Your task to perform on an android device: View the shopping cart on ebay.com. Add macbook to the cart on ebay.com Image 0: 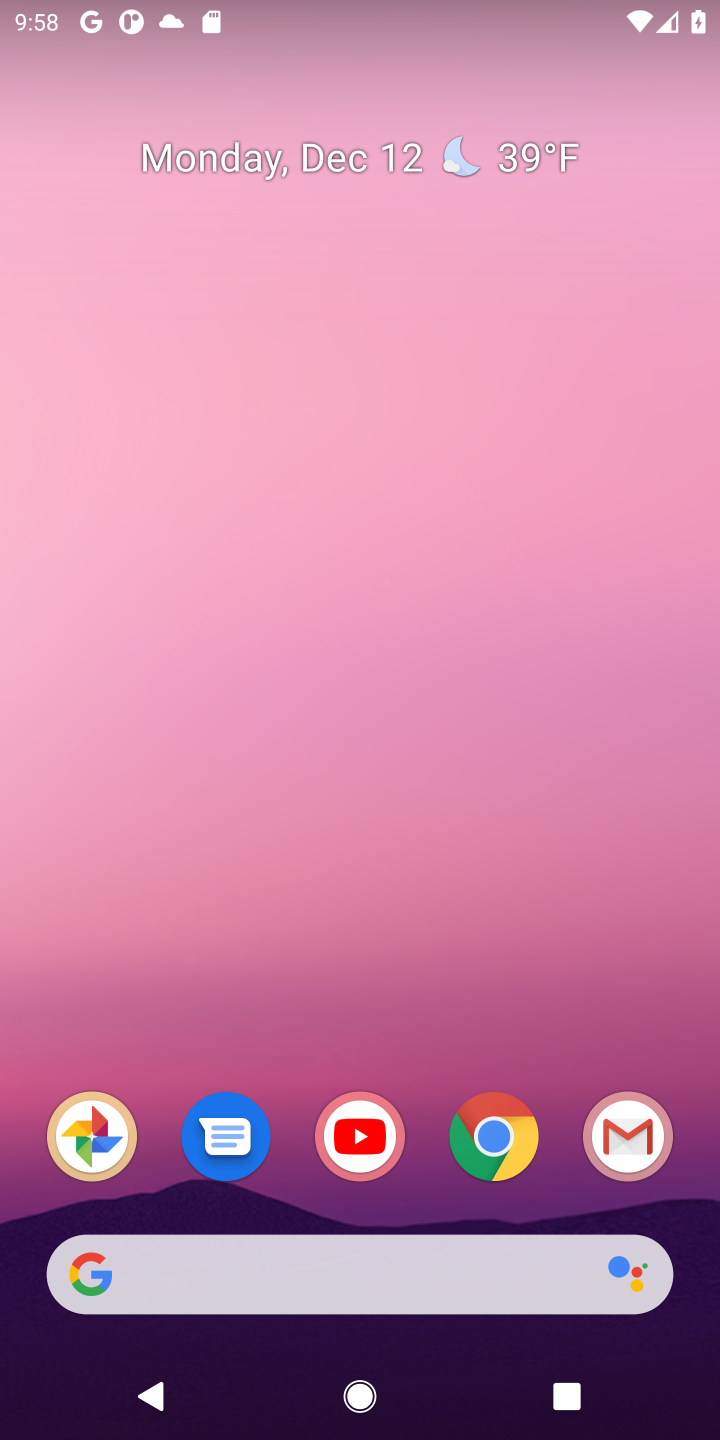
Step 0: click (493, 1147)
Your task to perform on an android device: View the shopping cart on ebay.com. Add macbook to the cart on ebay.com Image 1: 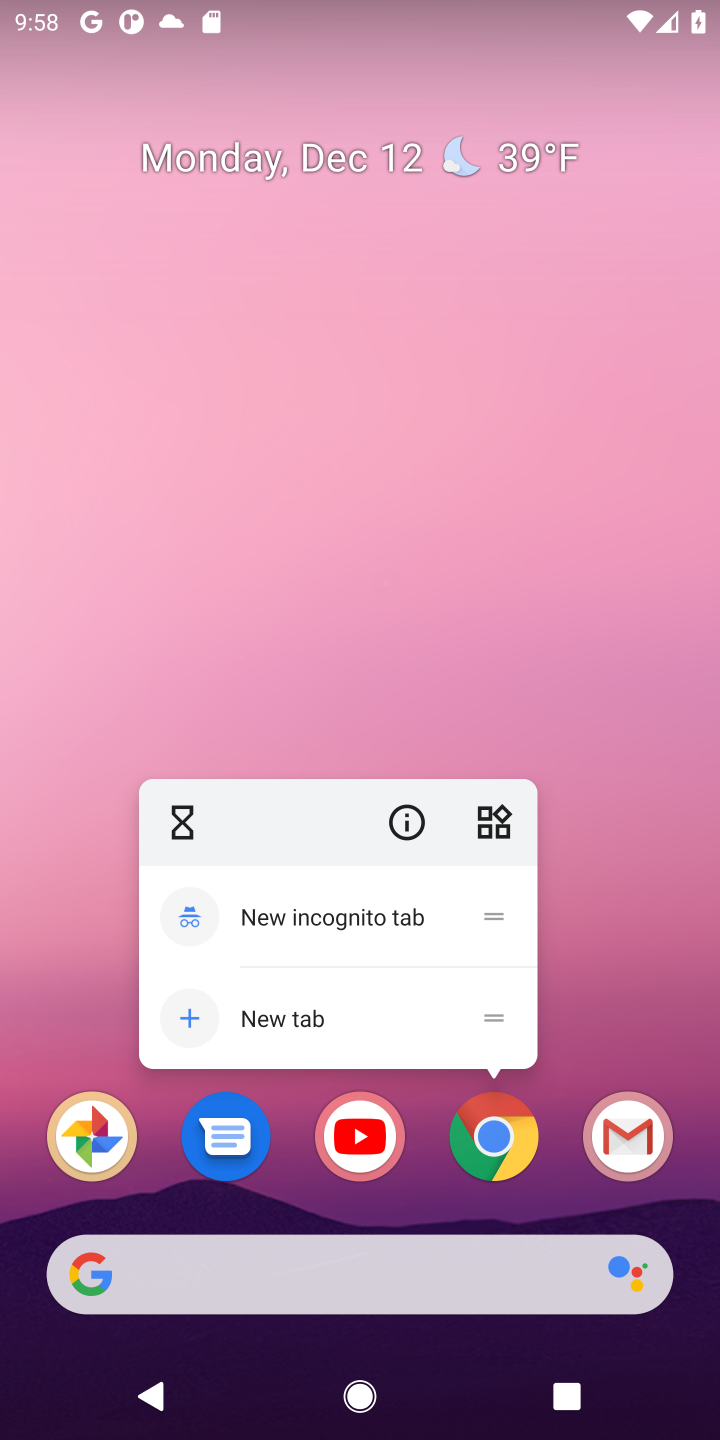
Step 1: click (493, 1147)
Your task to perform on an android device: View the shopping cart on ebay.com. Add macbook to the cart on ebay.com Image 2: 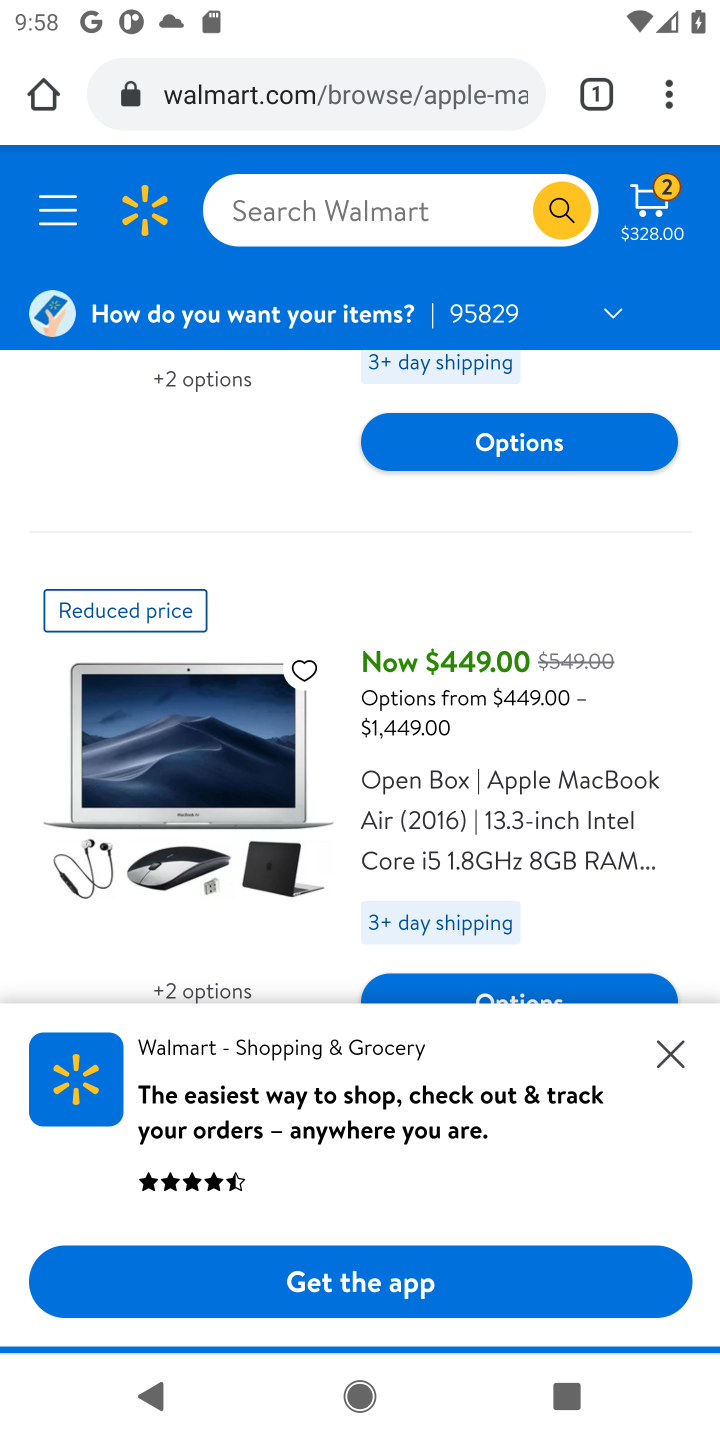
Step 2: click (263, 97)
Your task to perform on an android device: View the shopping cart on ebay.com. Add macbook to the cart on ebay.com Image 3: 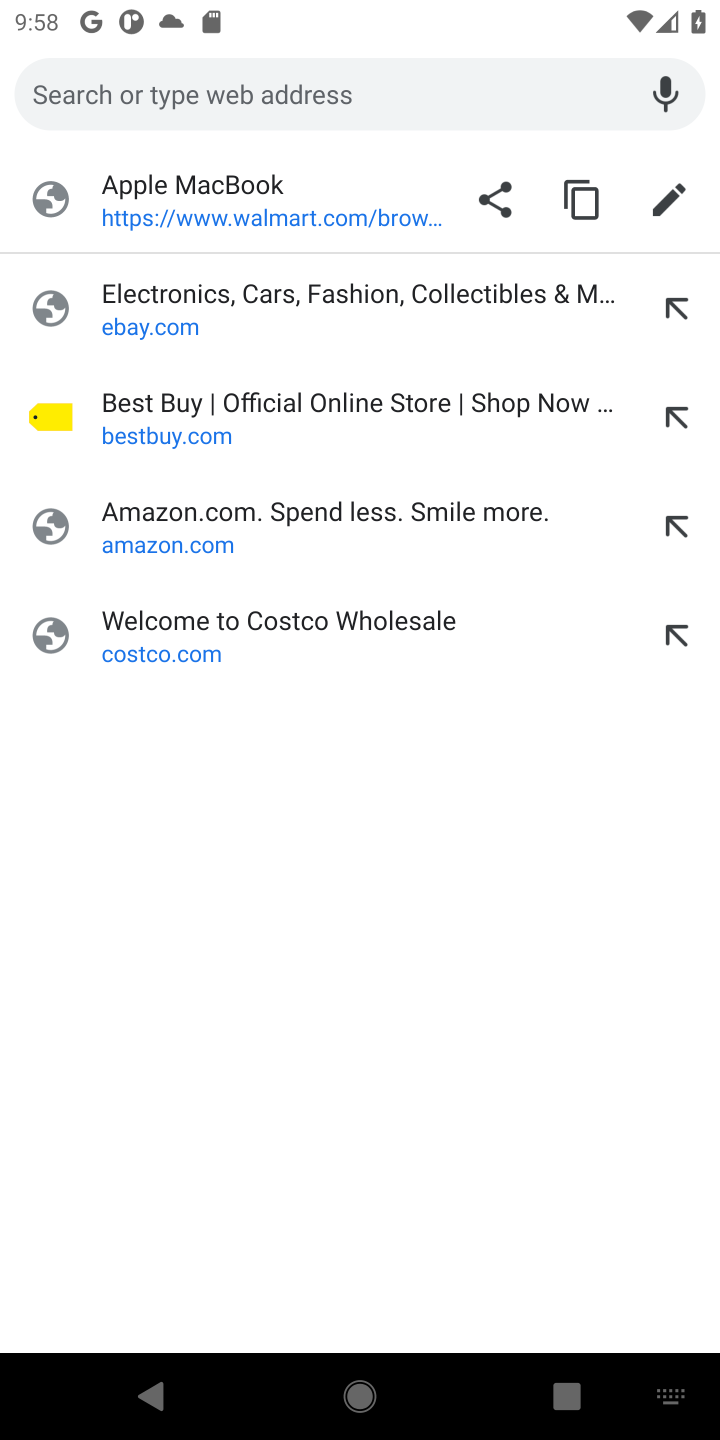
Step 3: click (170, 314)
Your task to perform on an android device: View the shopping cart on ebay.com. Add macbook to the cart on ebay.com Image 4: 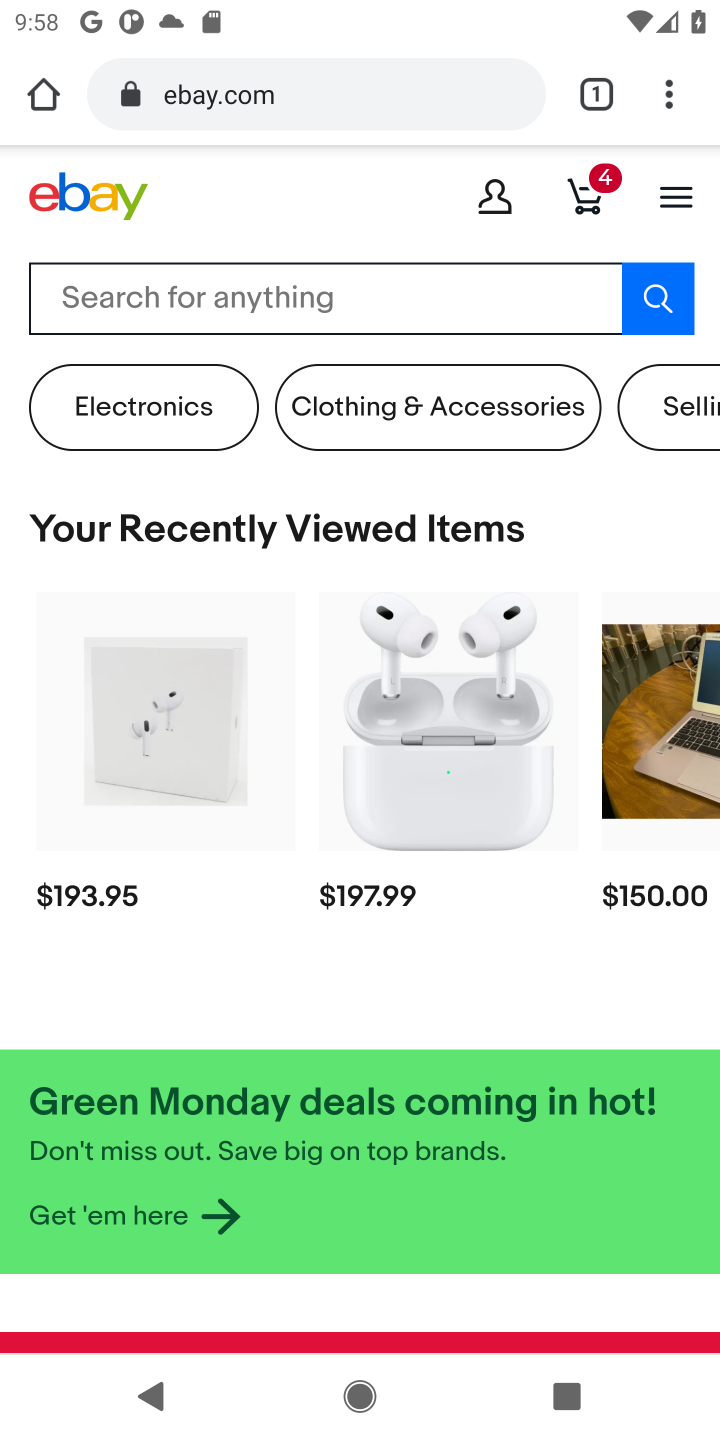
Step 4: click (590, 199)
Your task to perform on an android device: View the shopping cart on ebay.com. Add macbook to the cart on ebay.com Image 5: 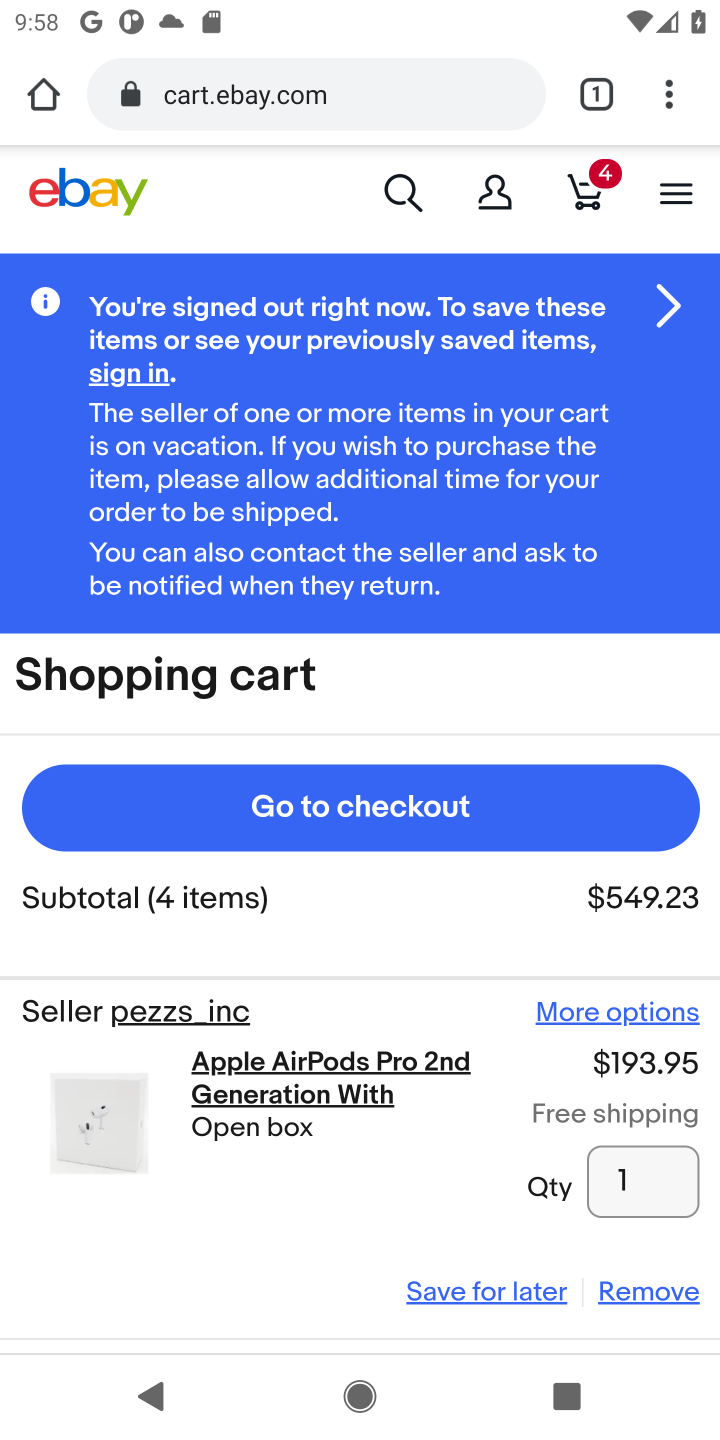
Step 5: drag from (349, 906) to (372, 569)
Your task to perform on an android device: View the shopping cart on ebay.com. Add macbook to the cart on ebay.com Image 6: 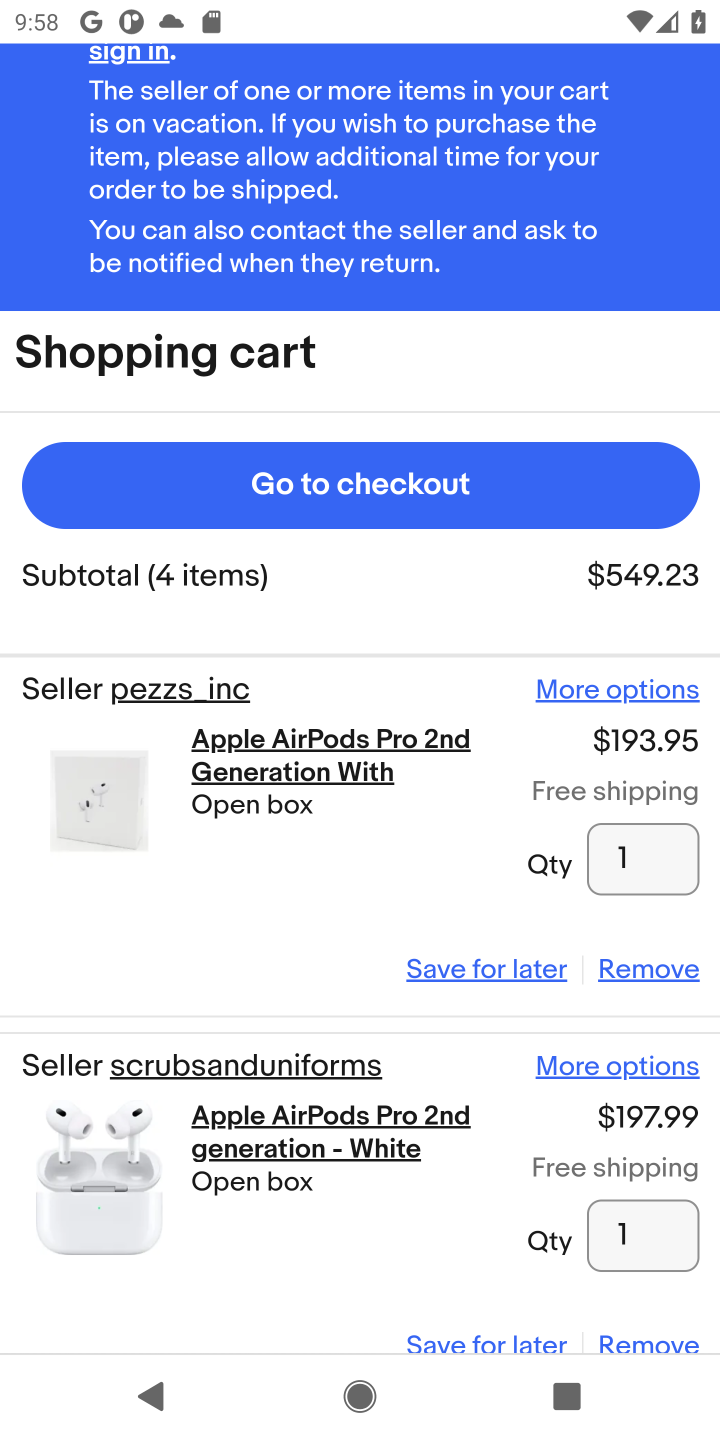
Step 6: drag from (405, 424) to (388, 1043)
Your task to perform on an android device: View the shopping cart on ebay.com. Add macbook to the cart on ebay.com Image 7: 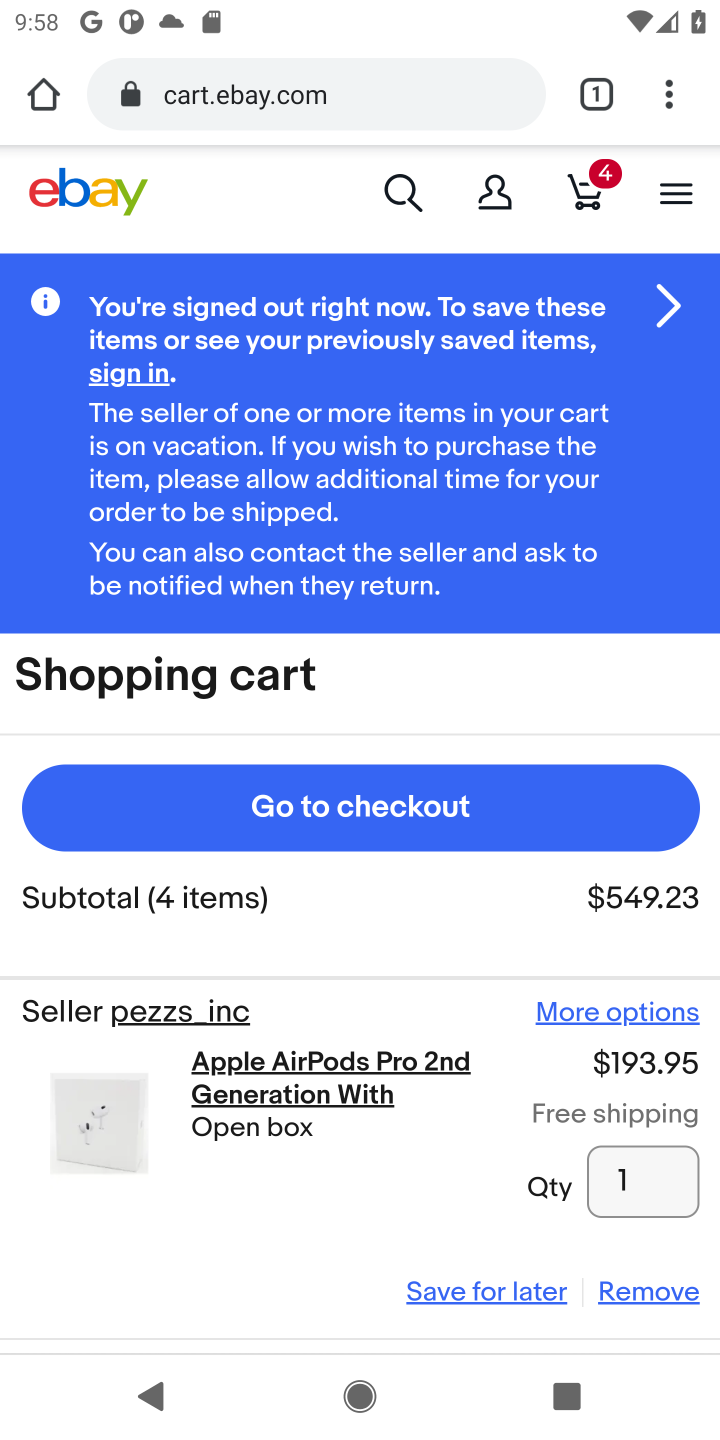
Step 7: click (400, 201)
Your task to perform on an android device: View the shopping cart on ebay.com. Add macbook to the cart on ebay.com Image 8: 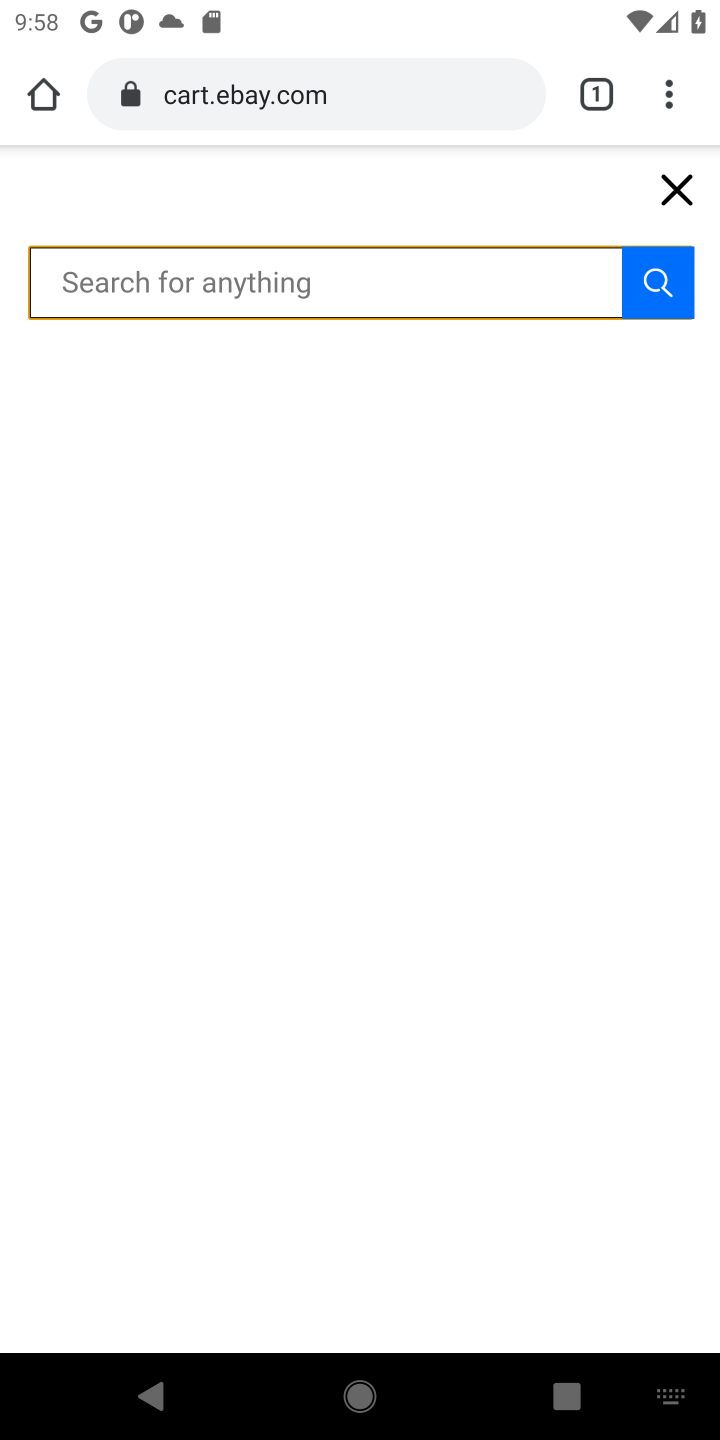
Step 8: type "macbook"
Your task to perform on an android device: View the shopping cart on ebay.com. Add macbook to the cart on ebay.com Image 9: 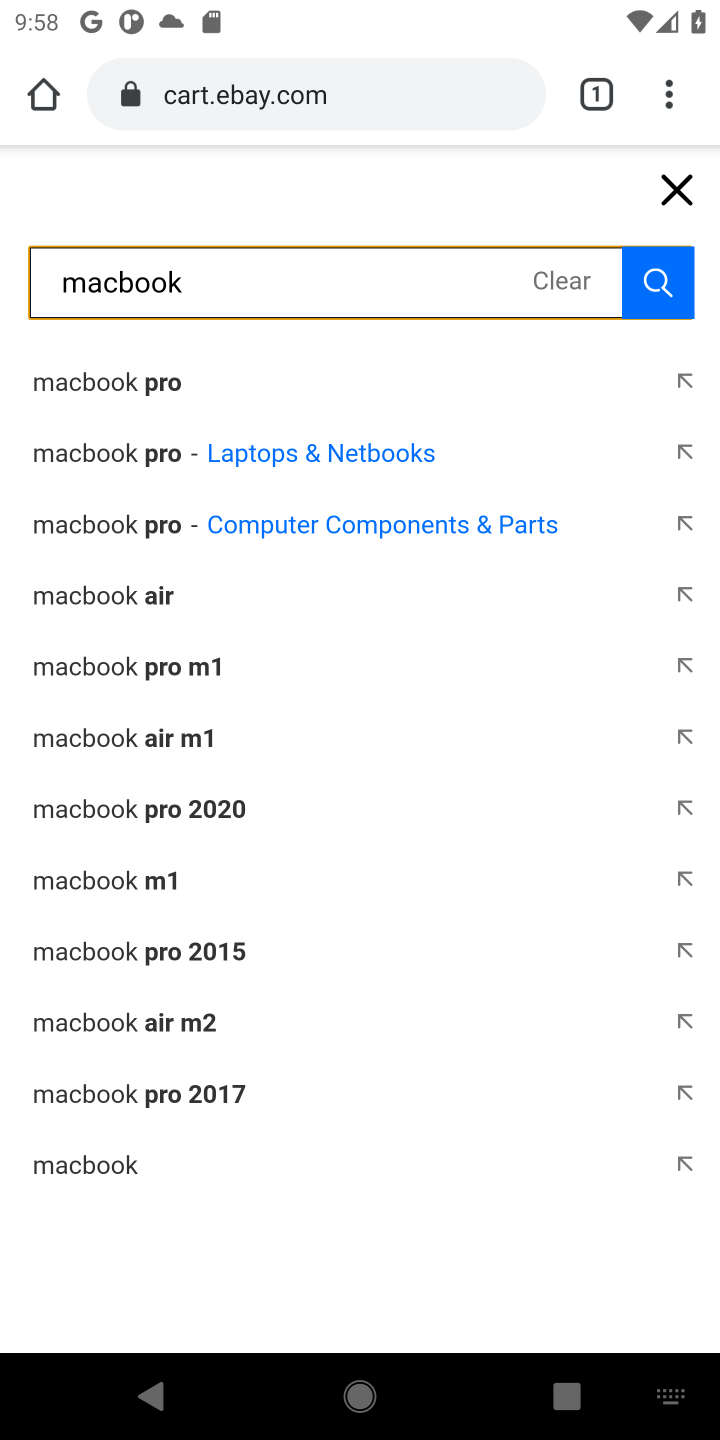
Step 9: click (99, 1157)
Your task to perform on an android device: View the shopping cart on ebay.com. Add macbook to the cart on ebay.com Image 10: 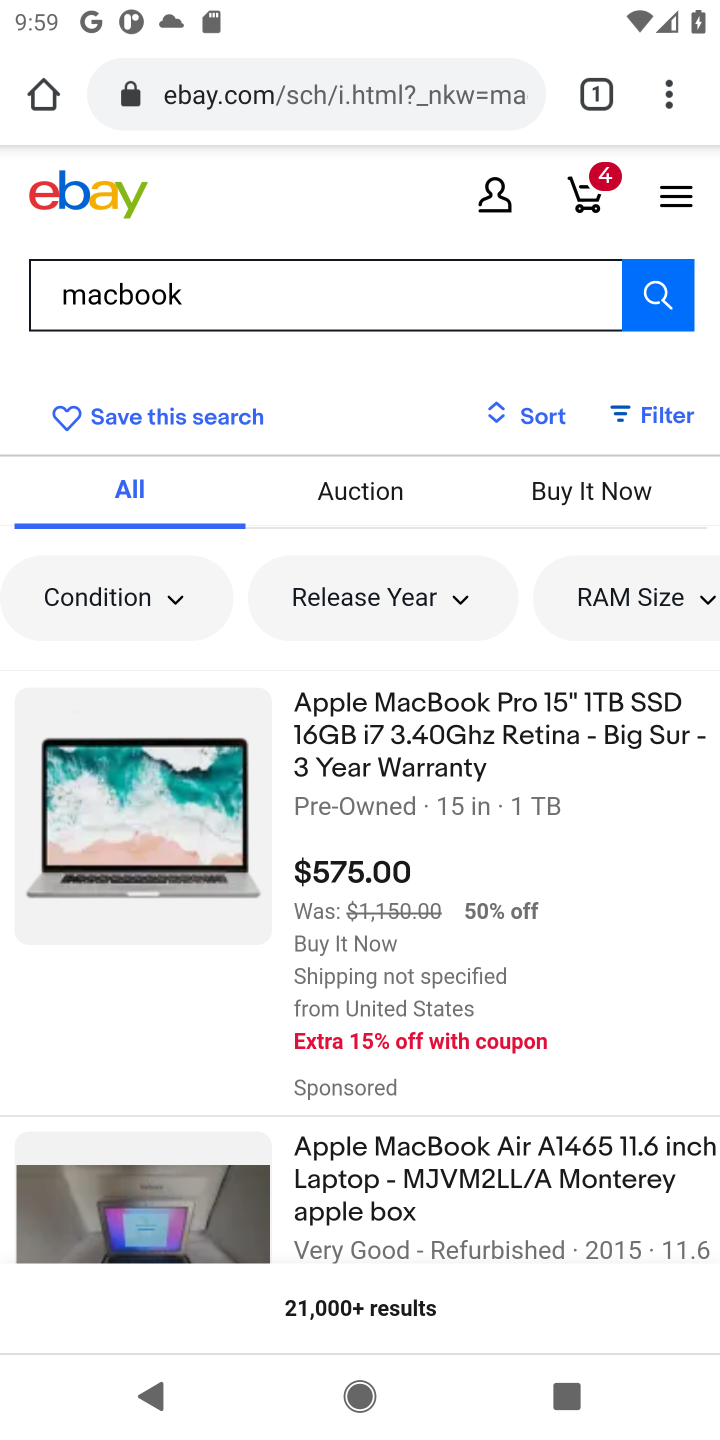
Step 10: click (394, 769)
Your task to perform on an android device: View the shopping cart on ebay.com. Add macbook to the cart on ebay.com Image 11: 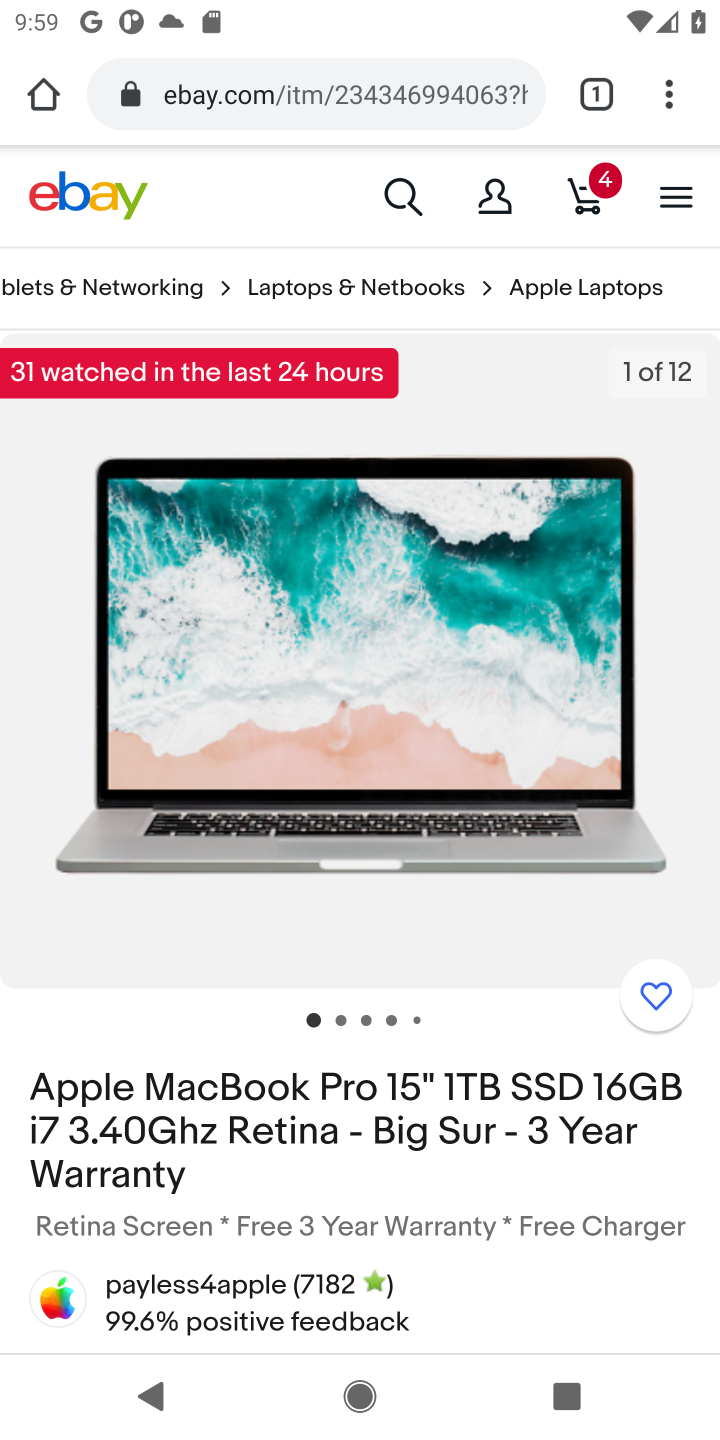
Step 11: drag from (347, 698) to (355, 353)
Your task to perform on an android device: View the shopping cart on ebay.com. Add macbook to the cart on ebay.com Image 12: 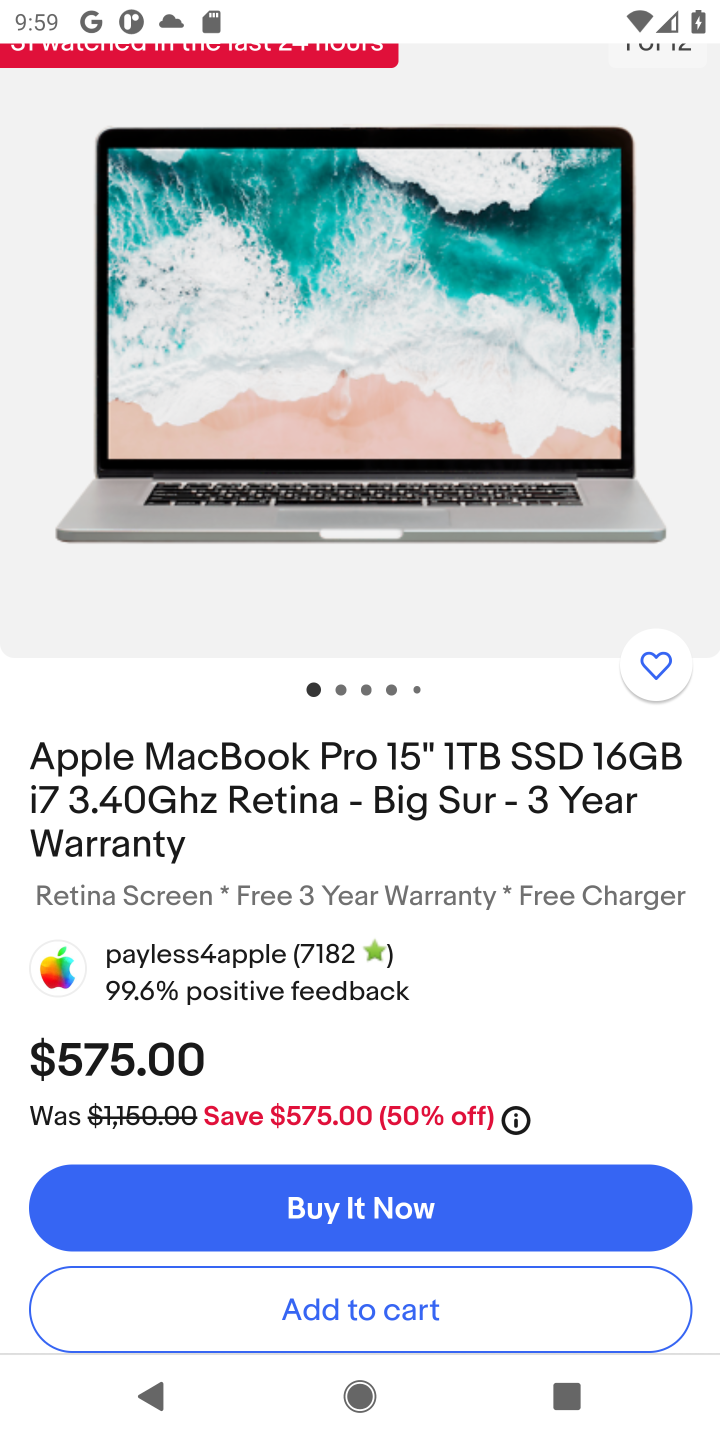
Step 12: click (343, 1311)
Your task to perform on an android device: View the shopping cart on ebay.com. Add macbook to the cart on ebay.com Image 13: 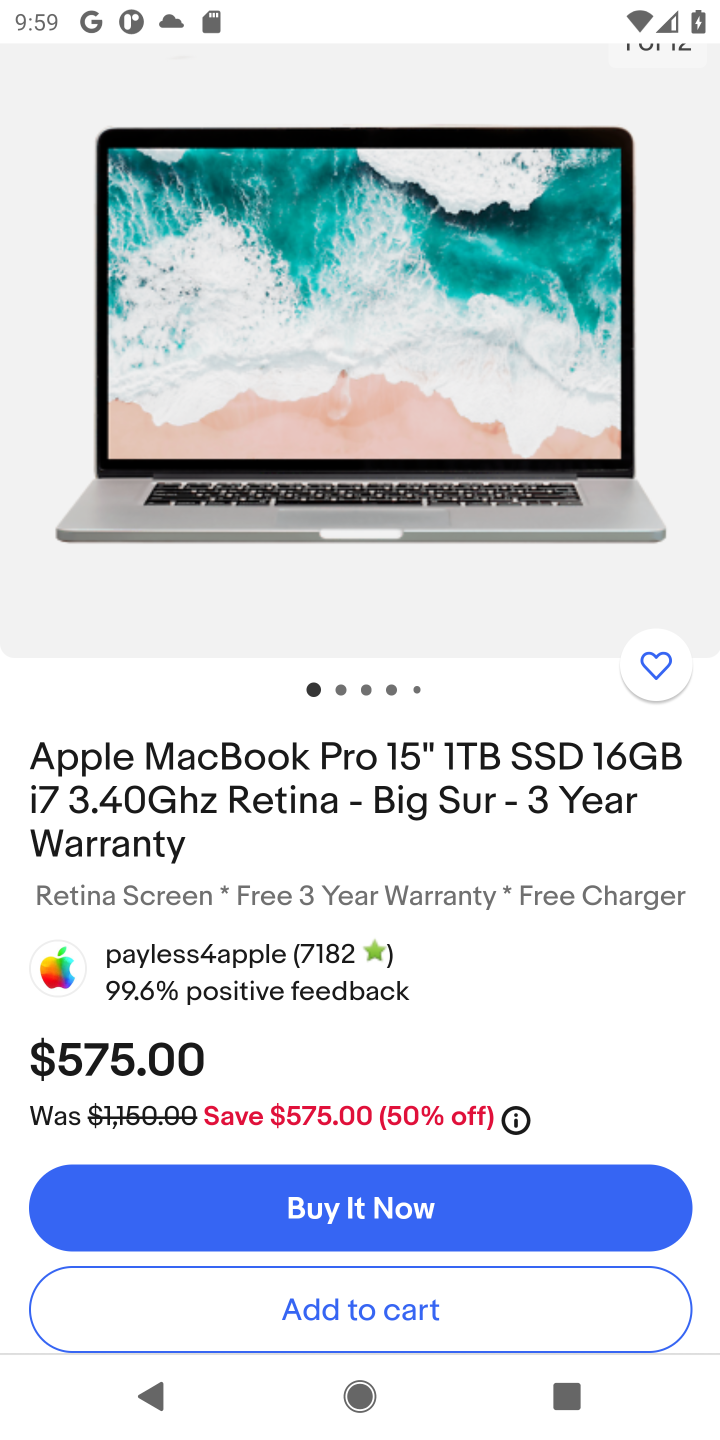
Step 13: drag from (343, 1311) to (351, 796)
Your task to perform on an android device: View the shopping cart on ebay.com. Add macbook to the cart on ebay.com Image 14: 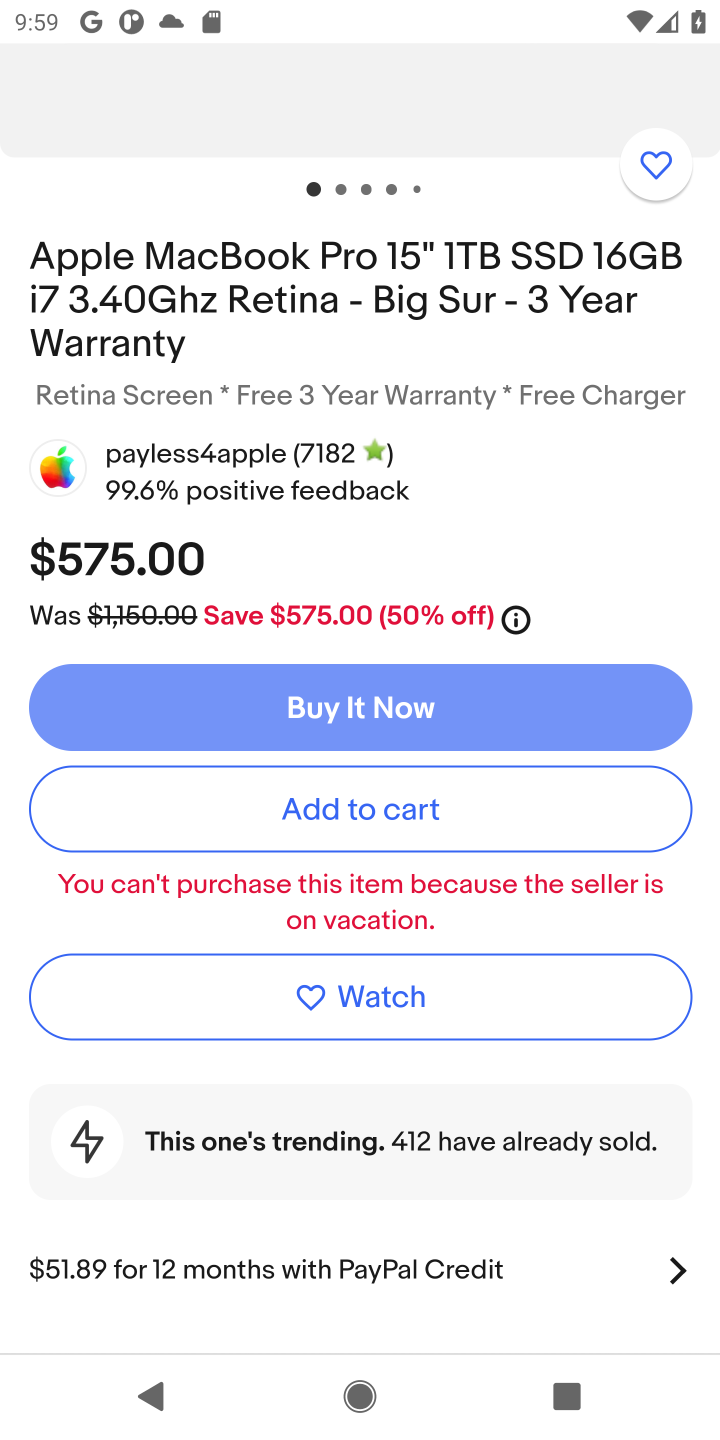
Step 14: press back button
Your task to perform on an android device: View the shopping cart on ebay.com. Add macbook to the cart on ebay.com Image 15: 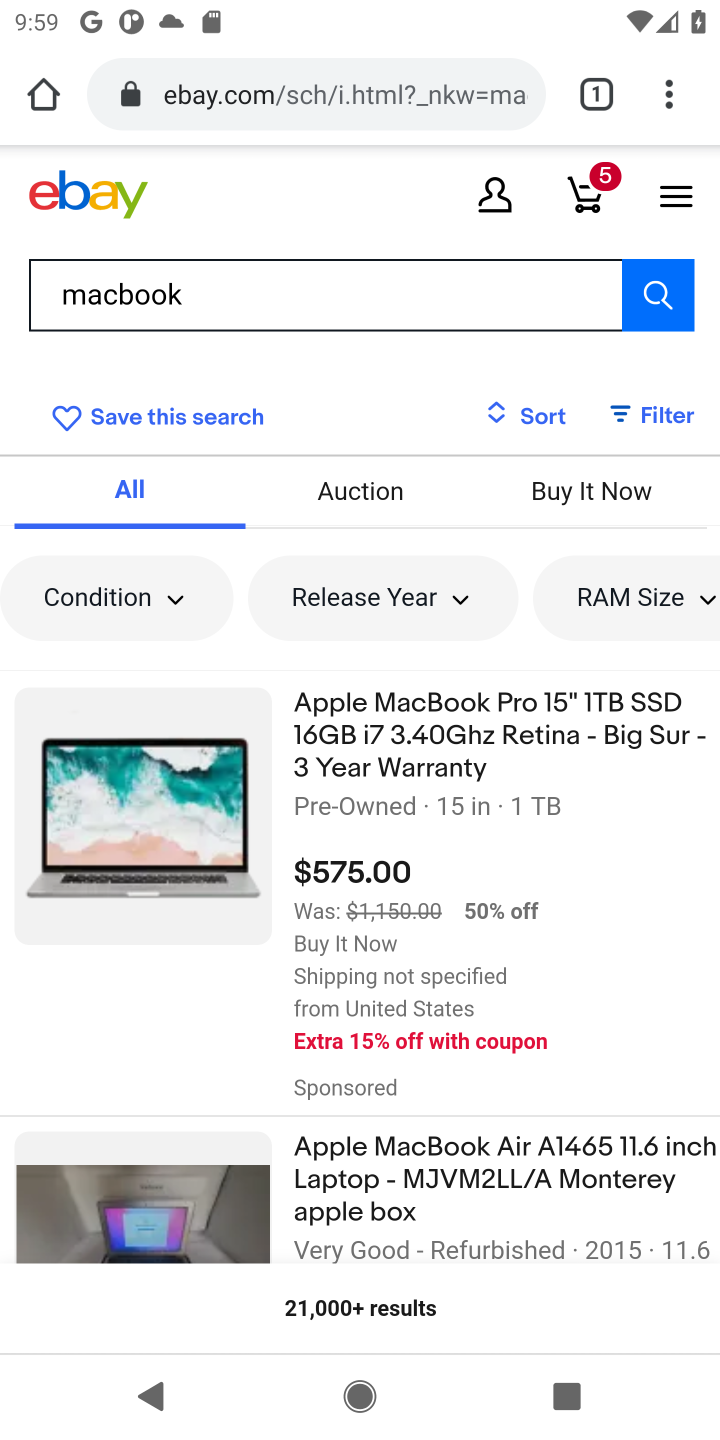
Step 15: drag from (305, 962) to (319, 497)
Your task to perform on an android device: View the shopping cart on ebay.com. Add macbook to the cart on ebay.com Image 16: 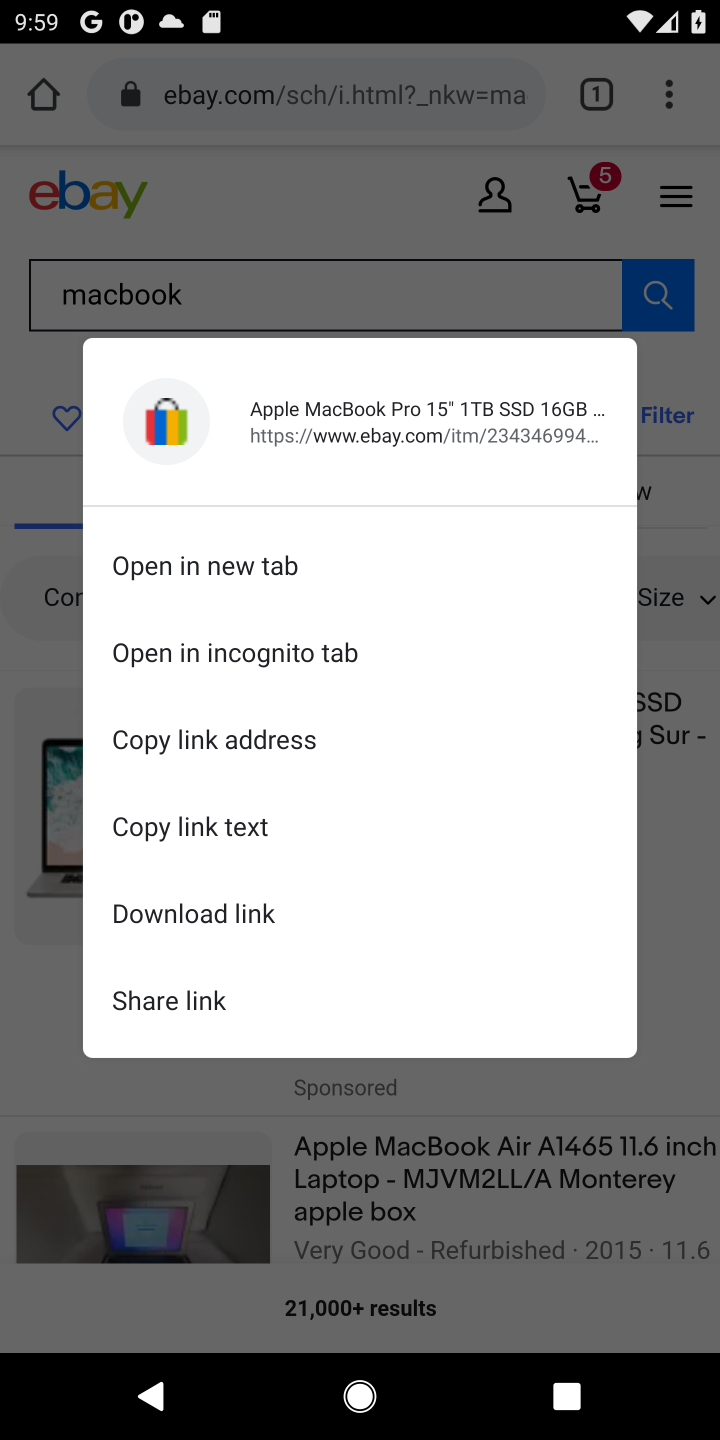
Step 16: click (672, 995)
Your task to perform on an android device: View the shopping cart on ebay.com. Add macbook to the cart on ebay.com Image 17: 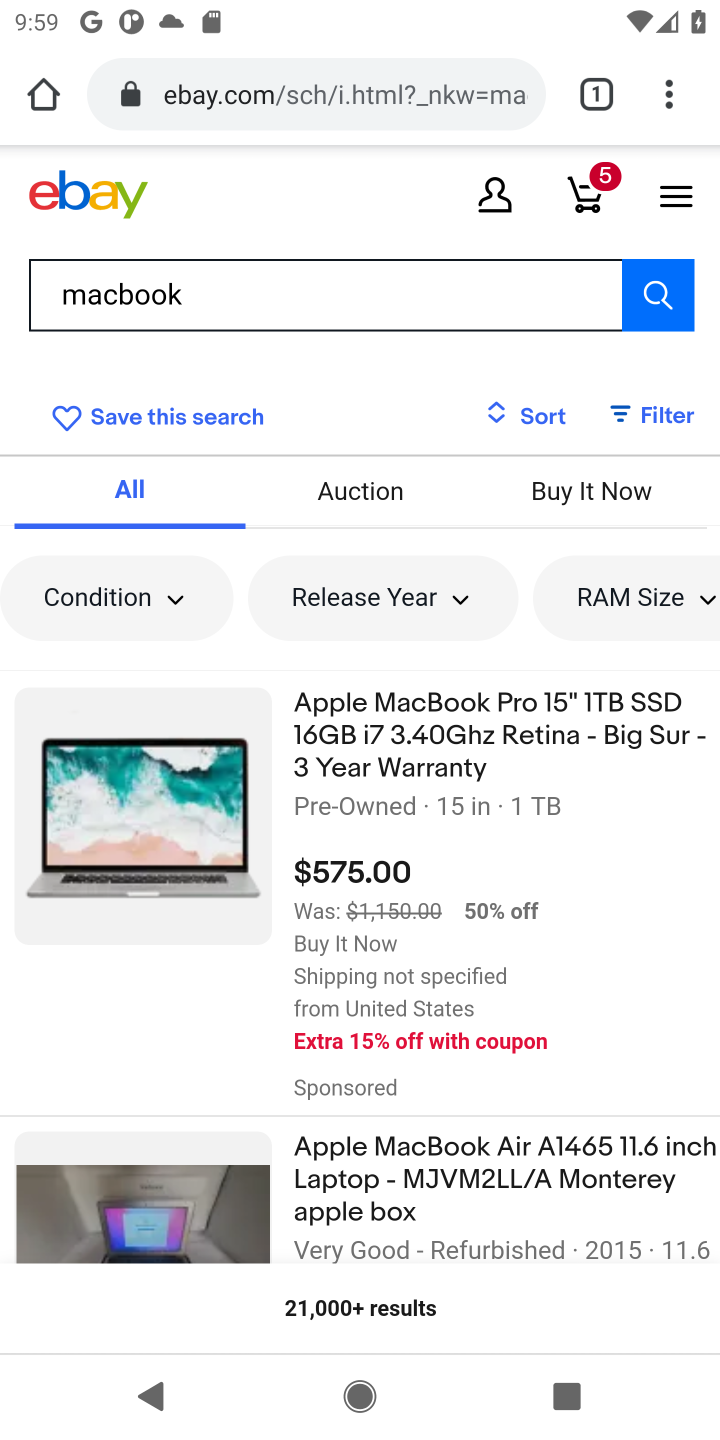
Step 17: drag from (388, 1140) to (393, 518)
Your task to perform on an android device: View the shopping cart on ebay.com. Add macbook to the cart on ebay.com Image 18: 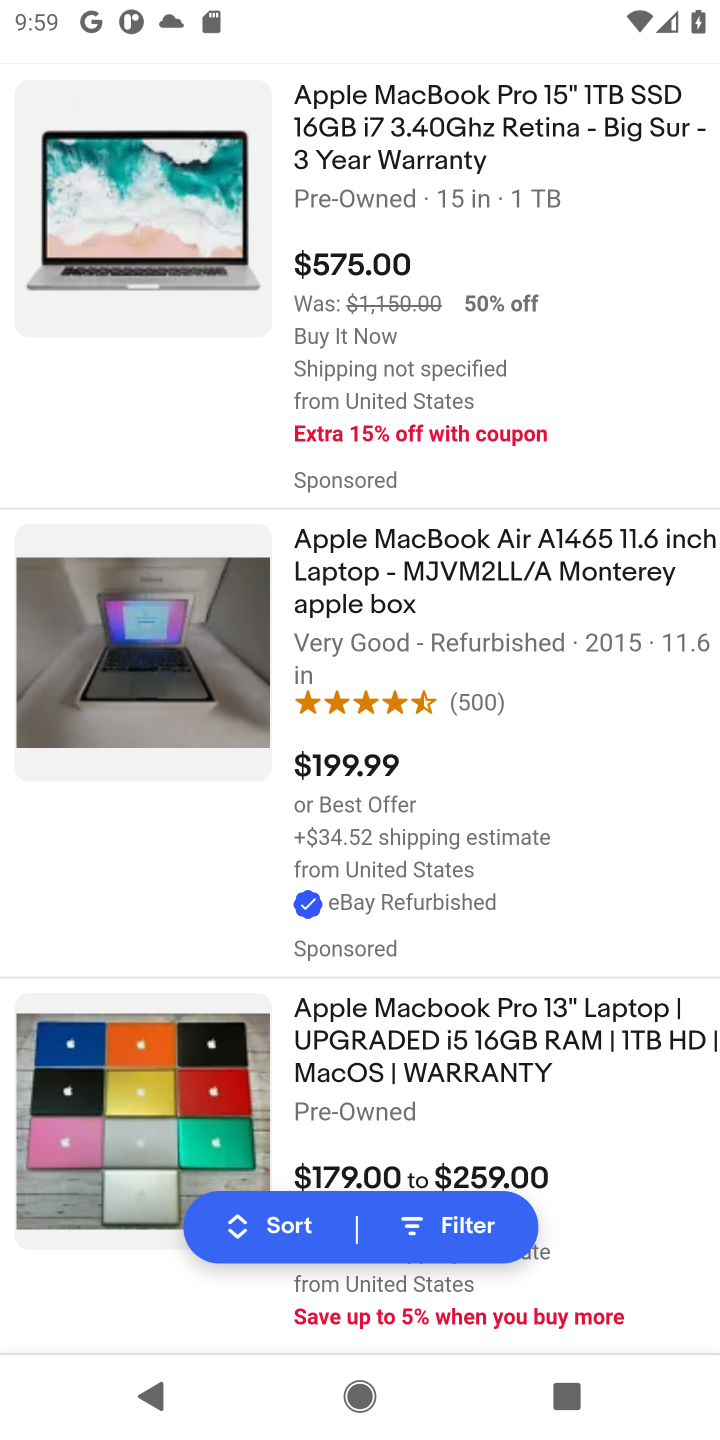
Step 18: drag from (381, 846) to (412, 466)
Your task to perform on an android device: View the shopping cart on ebay.com. Add macbook to the cart on ebay.com Image 19: 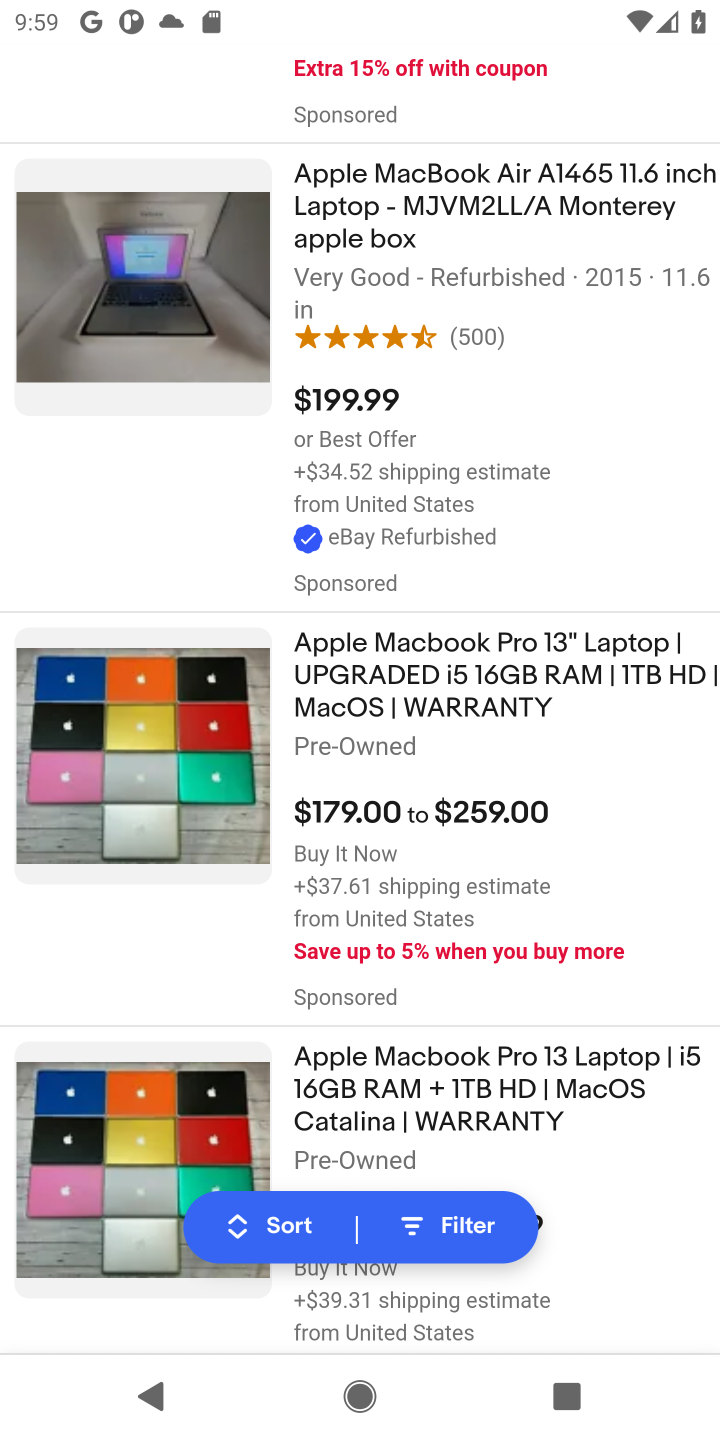
Step 19: click (334, 687)
Your task to perform on an android device: View the shopping cart on ebay.com. Add macbook to the cart on ebay.com Image 20: 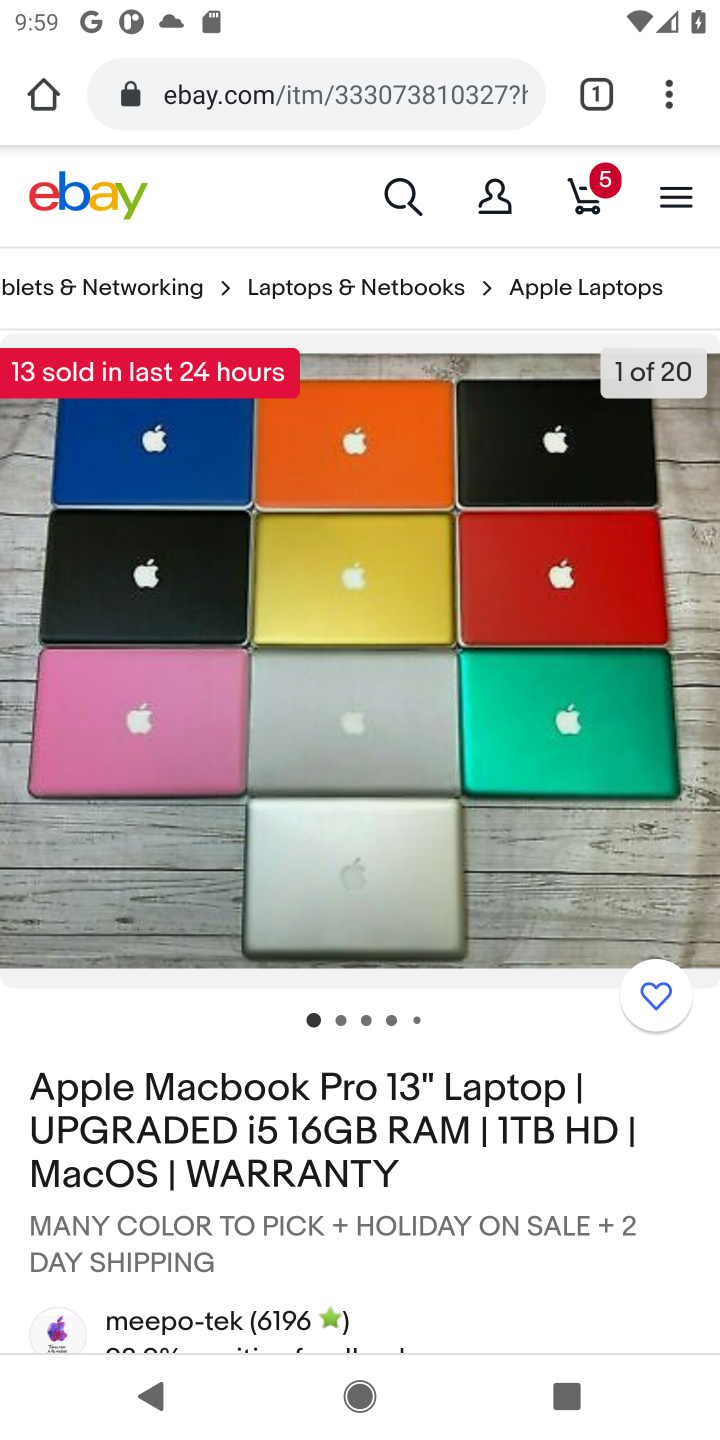
Step 20: drag from (327, 962) to (359, 429)
Your task to perform on an android device: View the shopping cart on ebay.com. Add macbook to the cart on ebay.com Image 21: 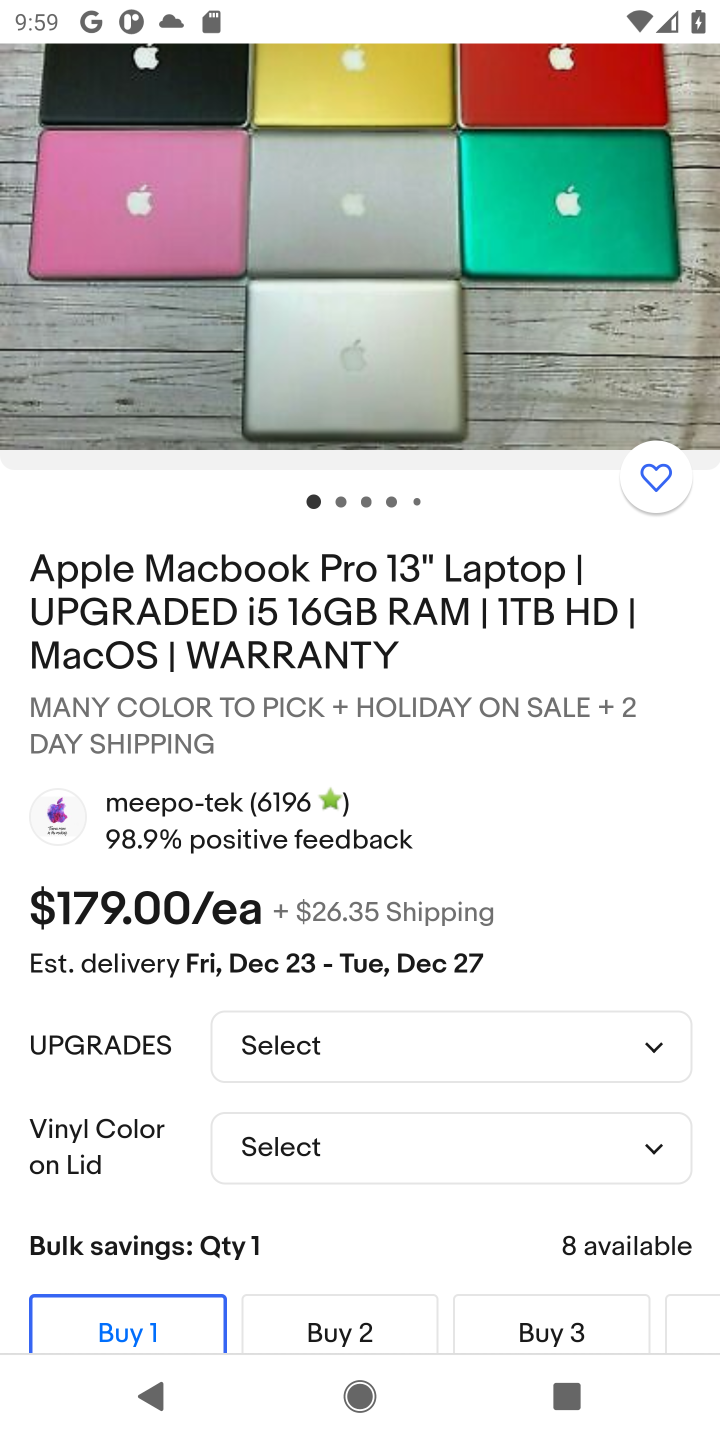
Step 21: drag from (308, 848) to (351, 408)
Your task to perform on an android device: View the shopping cart on ebay.com. Add macbook to the cart on ebay.com Image 22: 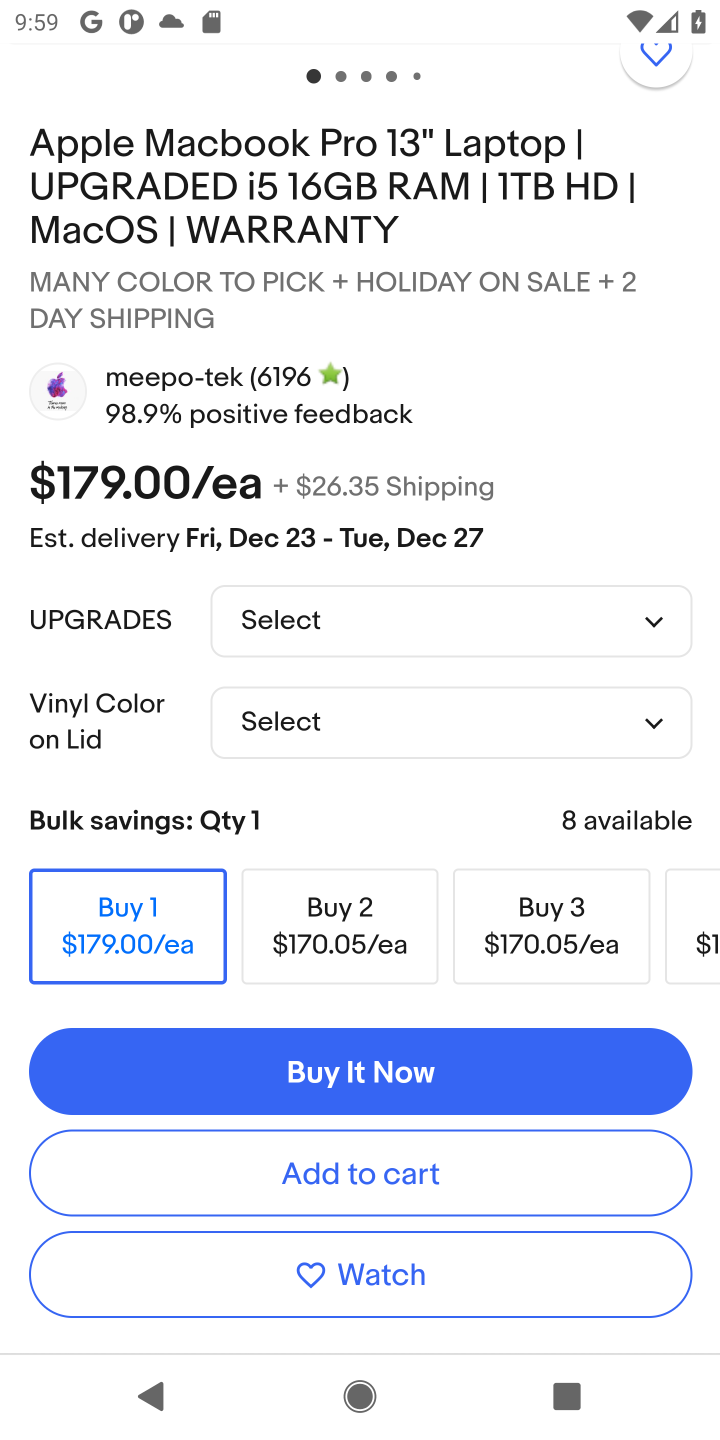
Step 22: click (260, 1180)
Your task to perform on an android device: View the shopping cart on ebay.com. Add macbook to the cart on ebay.com Image 23: 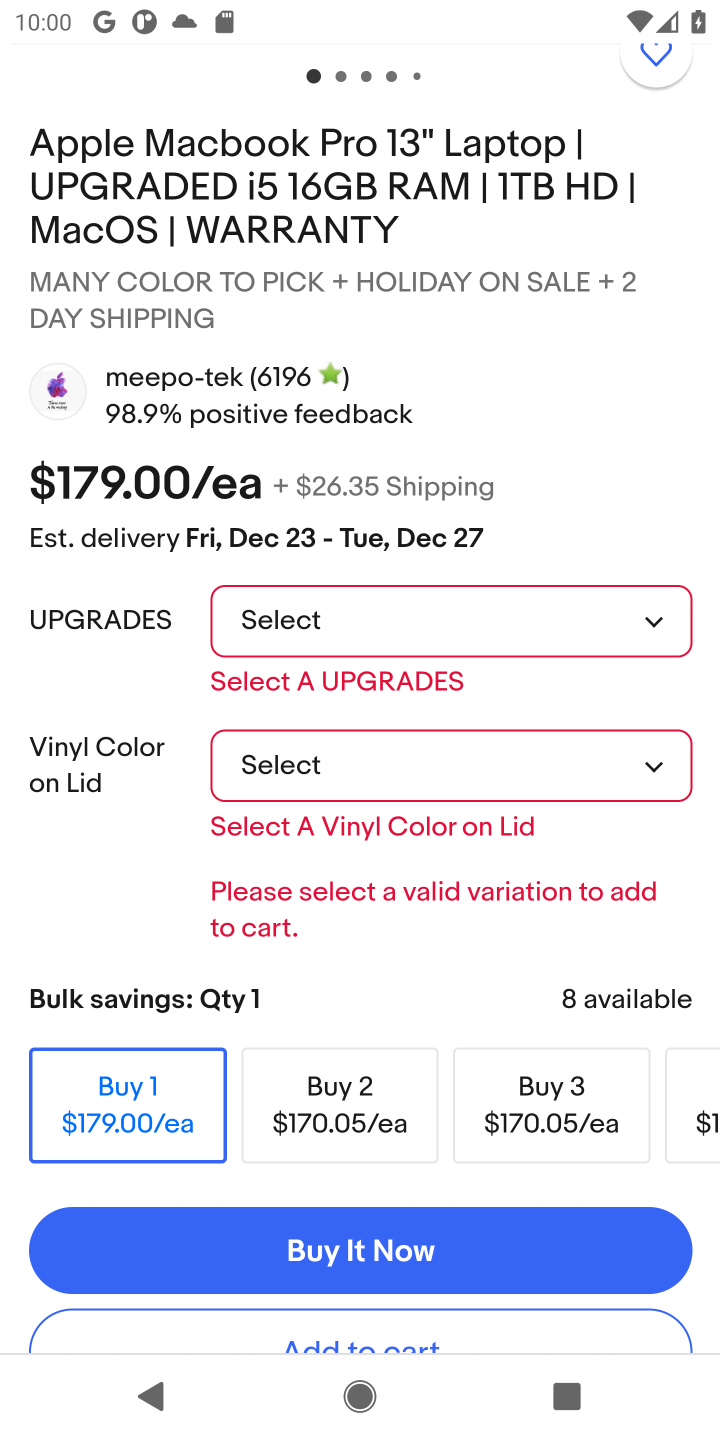
Step 23: click (665, 621)
Your task to perform on an android device: View the shopping cart on ebay.com. Add macbook to the cart on ebay.com Image 24: 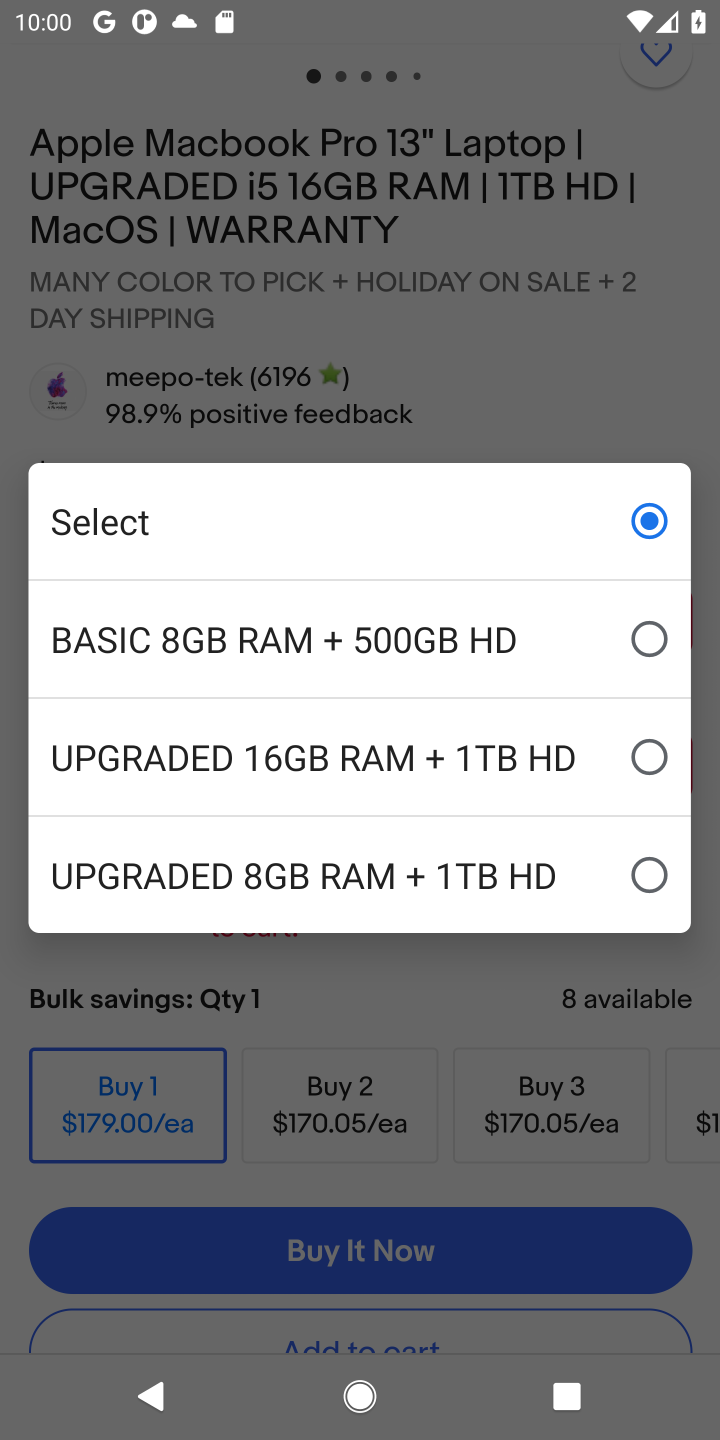
Step 24: click (290, 645)
Your task to perform on an android device: View the shopping cart on ebay.com. Add macbook to the cart on ebay.com Image 25: 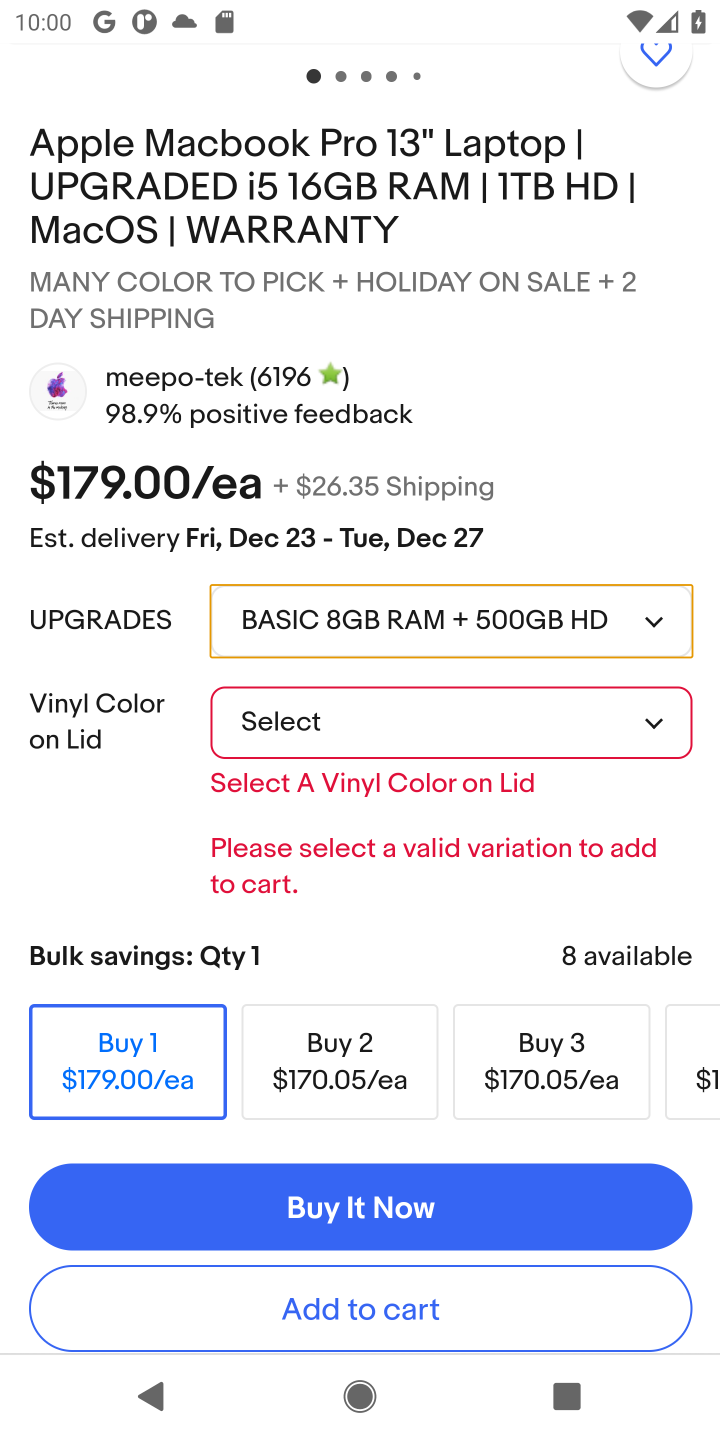
Step 25: click (644, 730)
Your task to perform on an android device: View the shopping cart on ebay.com. Add macbook to the cart on ebay.com Image 26: 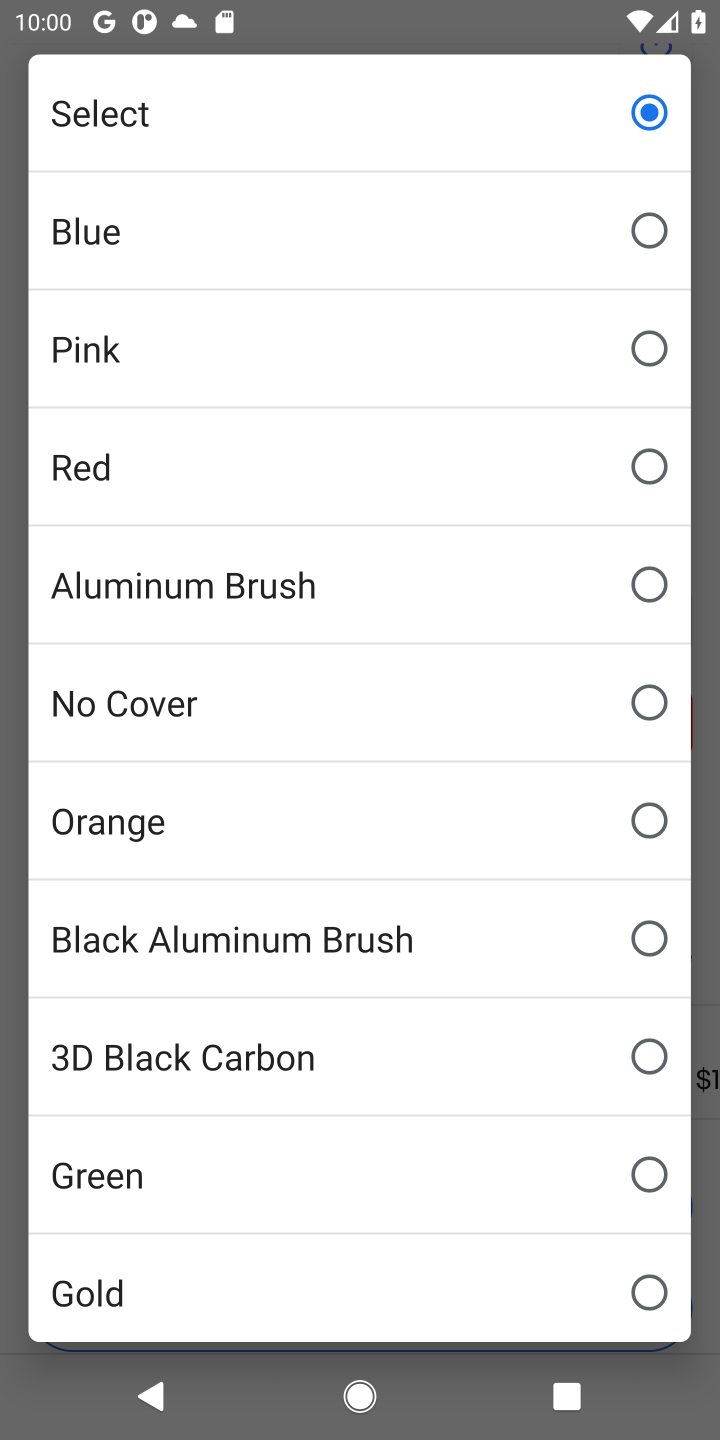
Step 26: click (78, 474)
Your task to perform on an android device: View the shopping cart on ebay.com. Add macbook to the cart on ebay.com Image 27: 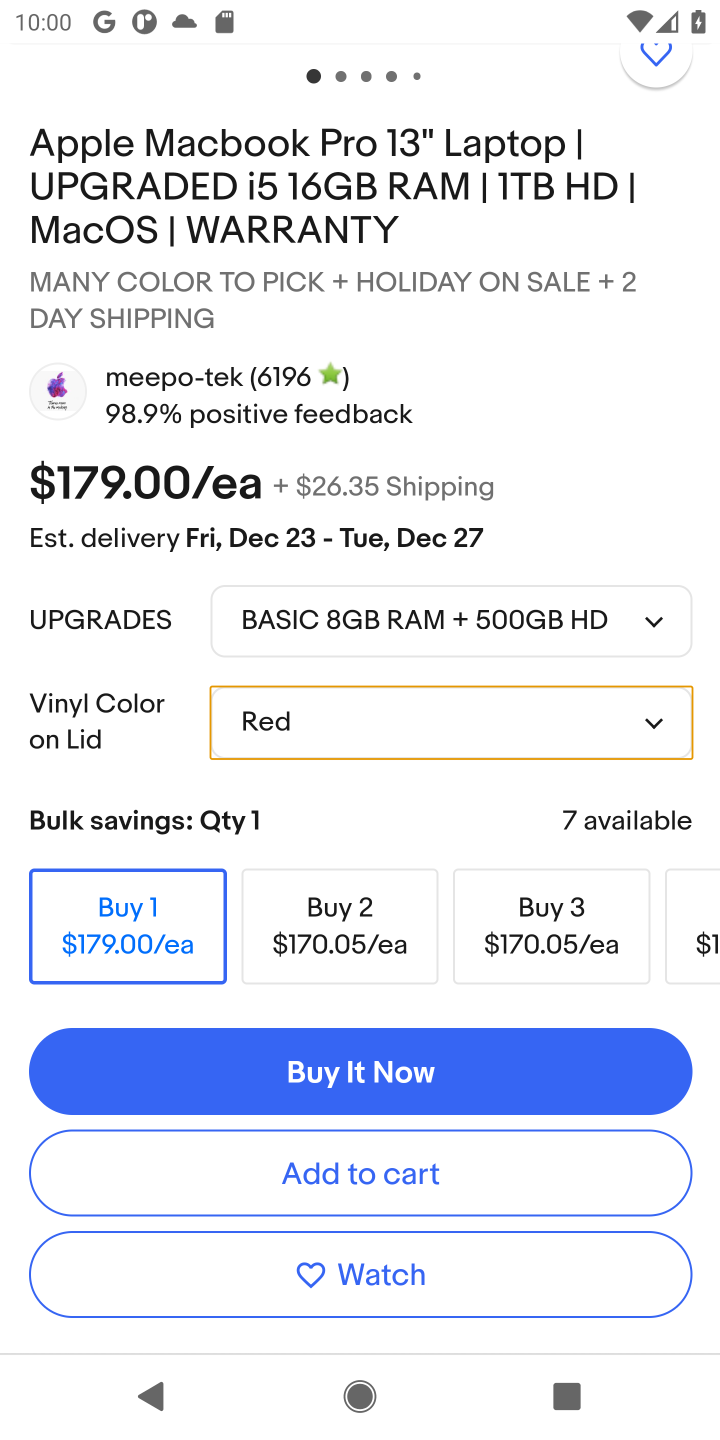
Step 27: click (303, 1164)
Your task to perform on an android device: View the shopping cart on ebay.com. Add macbook to the cart on ebay.com Image 28: 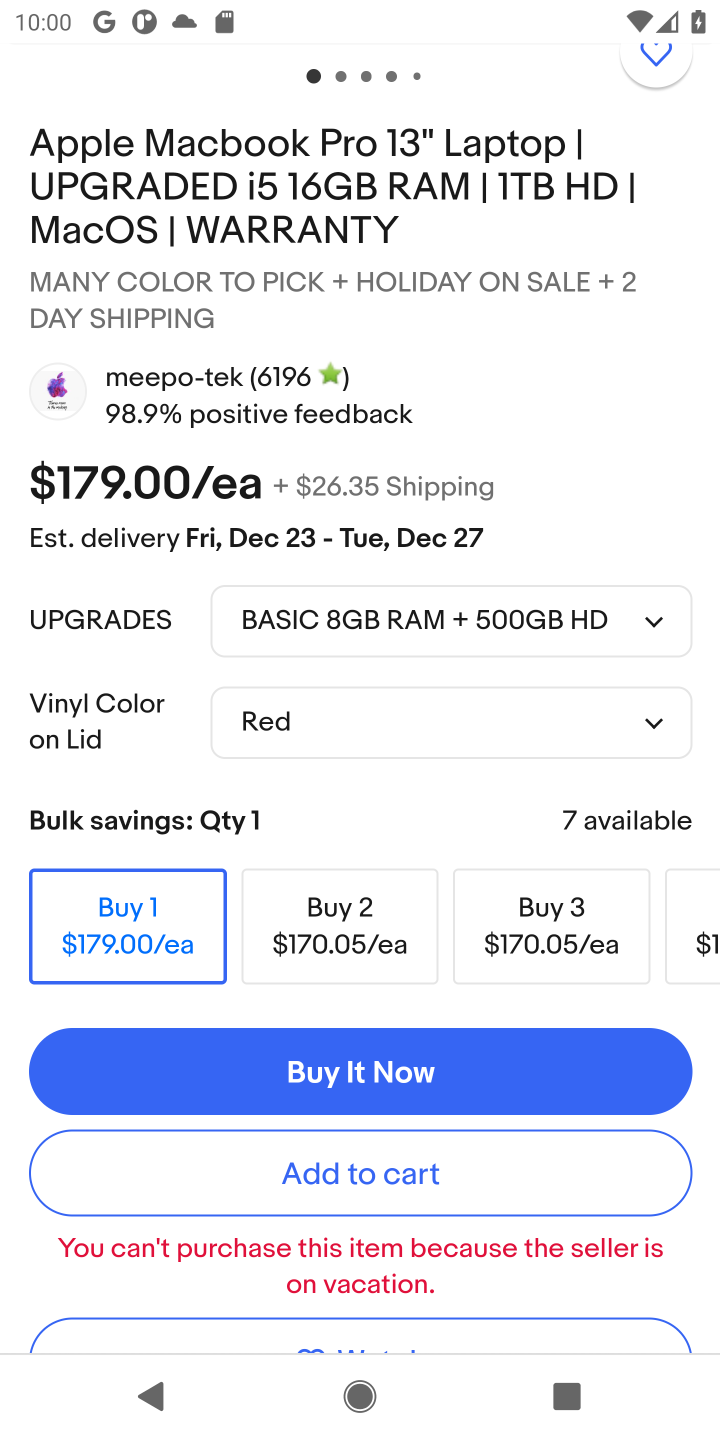
Step 28: task complete